Your task to perform on an android device: Turn off the flashlight Image 0: 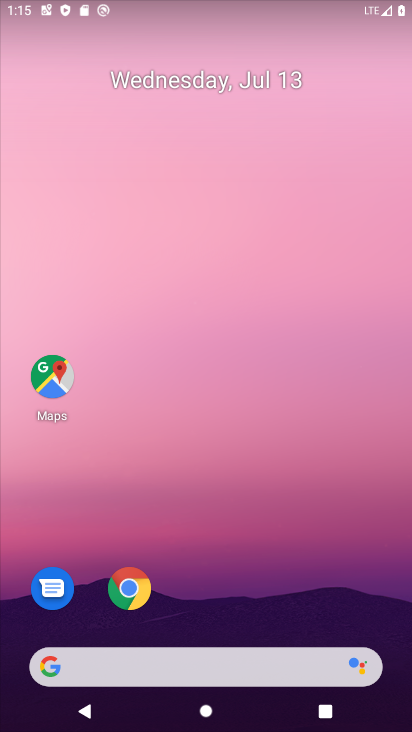
Step 0: drag from (382, 661) to (347, 209)
Your task to perform on an android device: Turn off the flashlight Image 1: 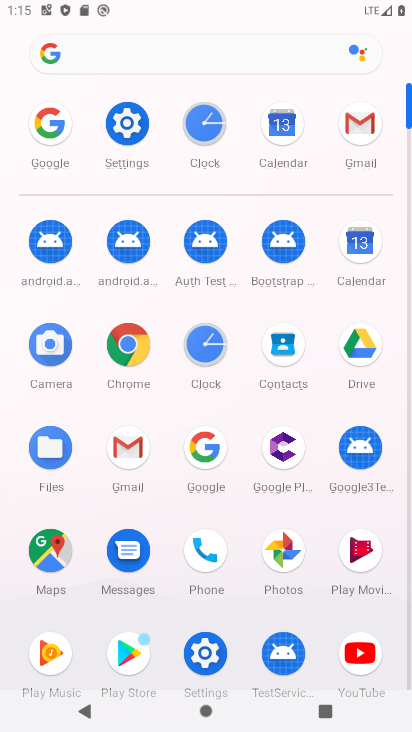
Step 1: click (132, 128)
Your task to perform on an android device: Turn off the flashlight Image 2: 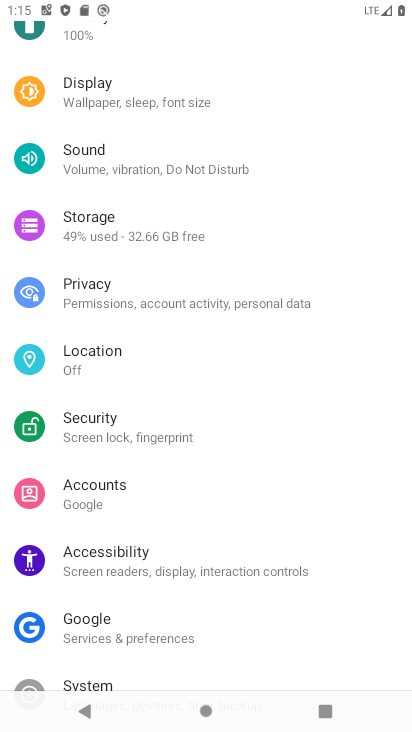
Step 2: click (81, 95)
Your task to perform on an android device: Turn off the flashlight Image 3: 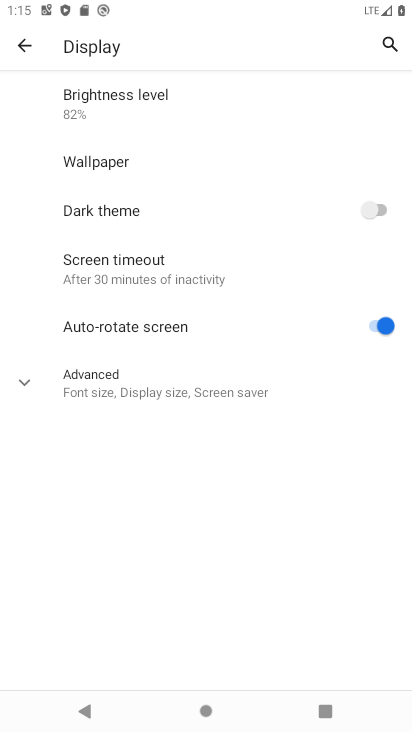
Step 3: task complete